Your task to perform on an android device: Go to calendar. Show me events next week Image 0: 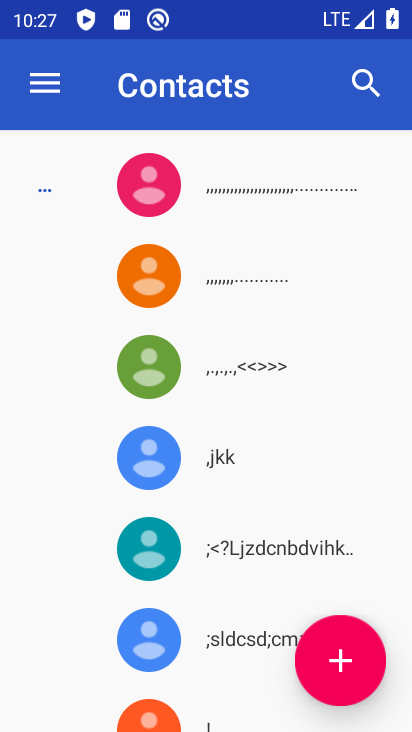
Step 0: press home button
Your task to perform on an android device: Go to calendar. Show me events next week Image 1: 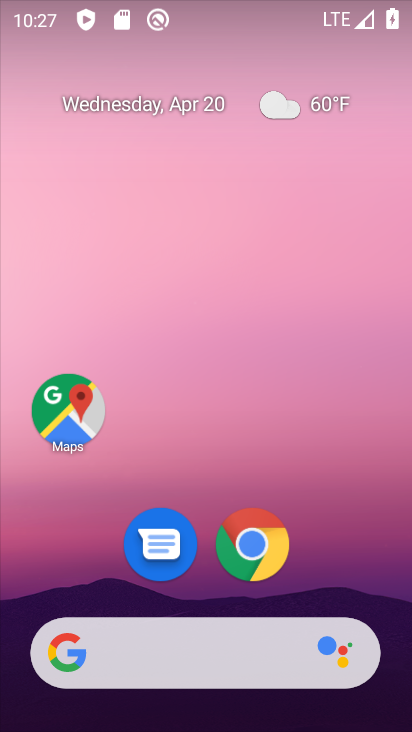
Step 1: drag from (381, 521) to (336, 10)
Your task to perform on an android device: Go to calendar. Show me events next week Image 2: 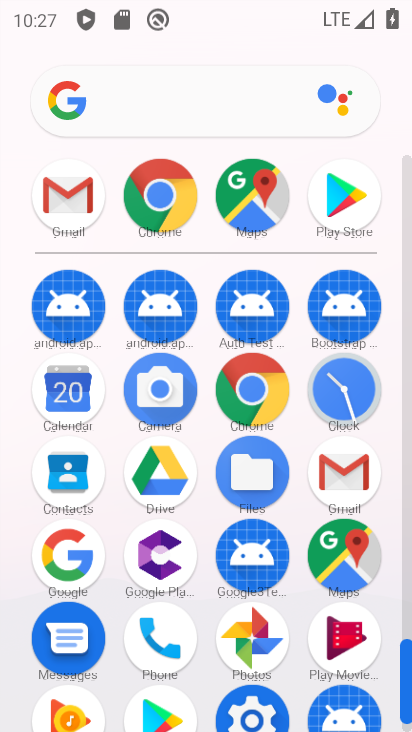
Step 2: click (67, 397)
Your task to perform on an android device: Go to calendar. Show me events next week Image 3: 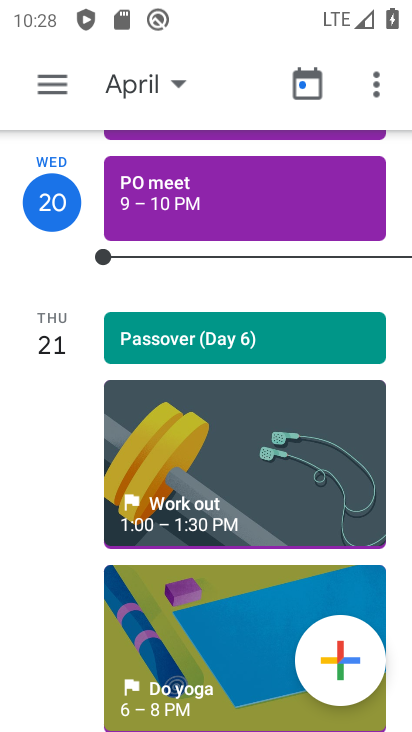
Step 3: click (166, 94)
Your task to perform on an android device: Go to calendar. Show me events next week Image 4: 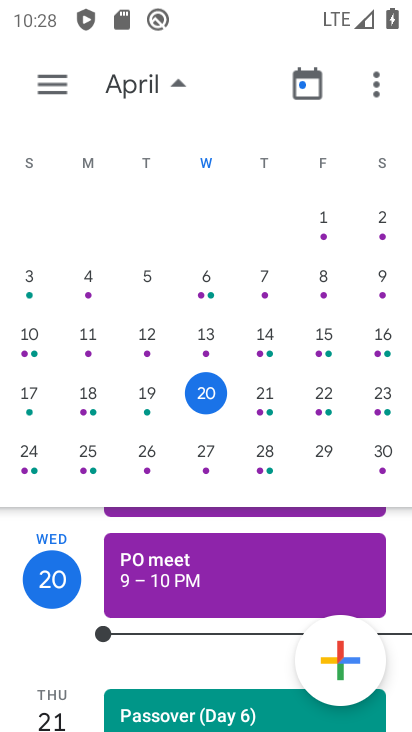
Step 4: click (266, 401)
Your task to perform on an android device: Go to calendar. Show me events next week Image 5: 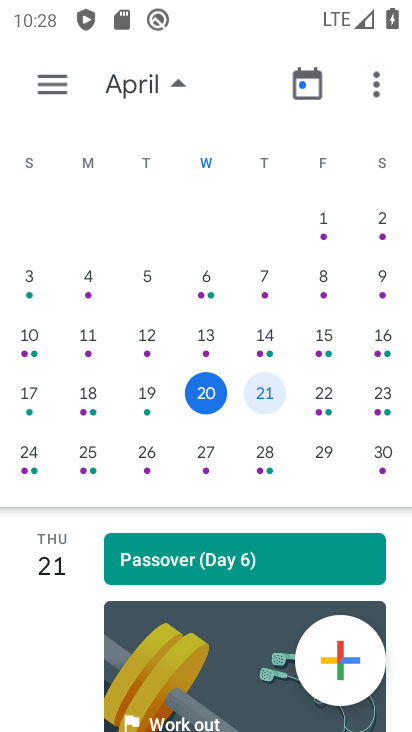
Step 5: click (181, 86)
Your task to perform on an android device: Go to calendar. Show me events next week Image 6: 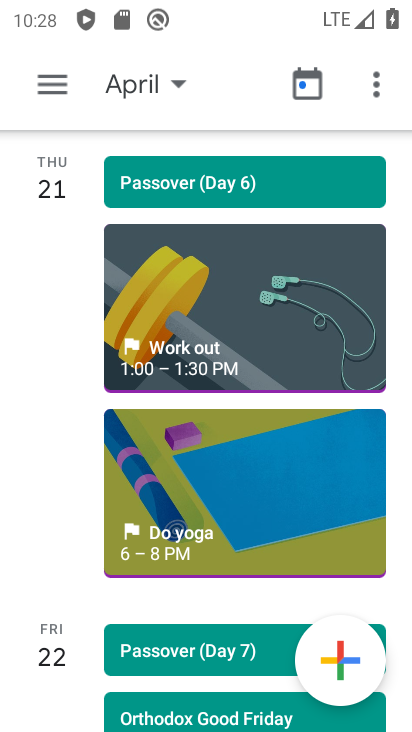
Step 6: task complete